Your task to perform on an android device: Turn on the flashlight Image 0: 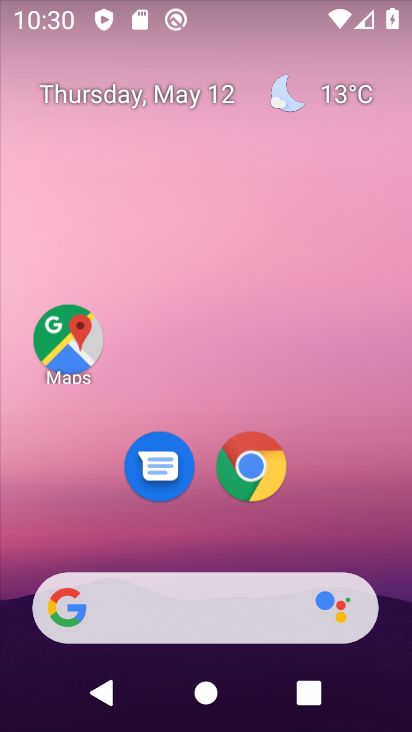
Step 0: drag from (315, 531) to (325, 181)
Your task to perform on an android device: Turn on the flashlight Image 1: 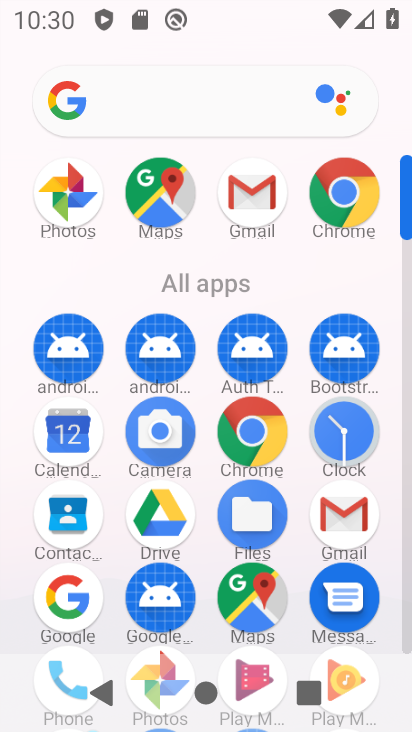
Step 1: drag from (295, 617) to (296, 314)
Your task to perform on an android device: Turn on the flashlight Image 2: 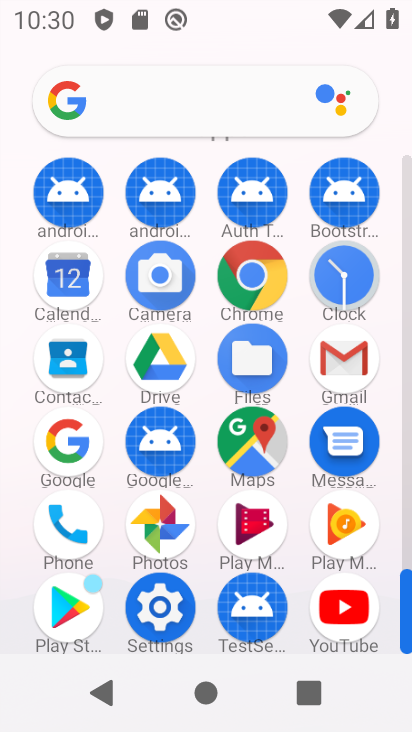
Step 2: click (171, 608)
Your task to perform on an android device: Turn on the flashlight Image 3: 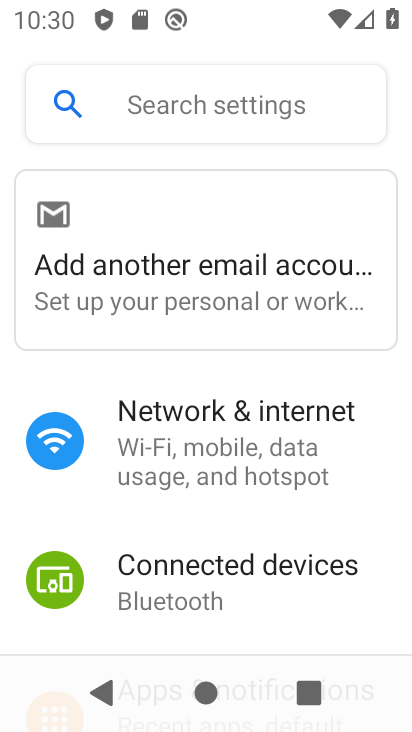
Step 3: click (201, 97)
Your task to perform on an android device: Turn on the flashlight Image 4: 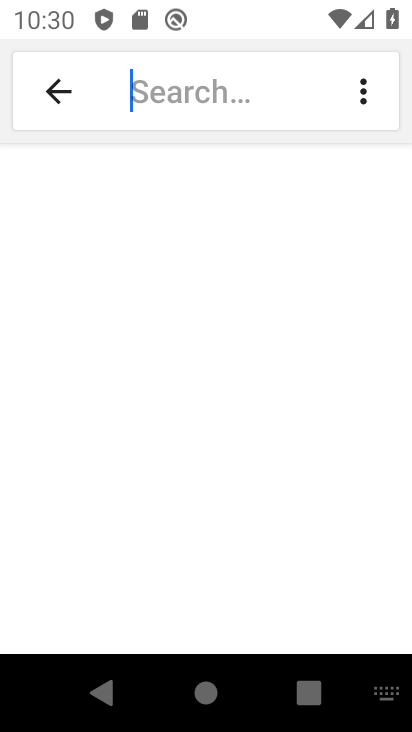
Step 4: type "flashlight"
Your task to perform on an android device: Turn on the flashlight Image 5: 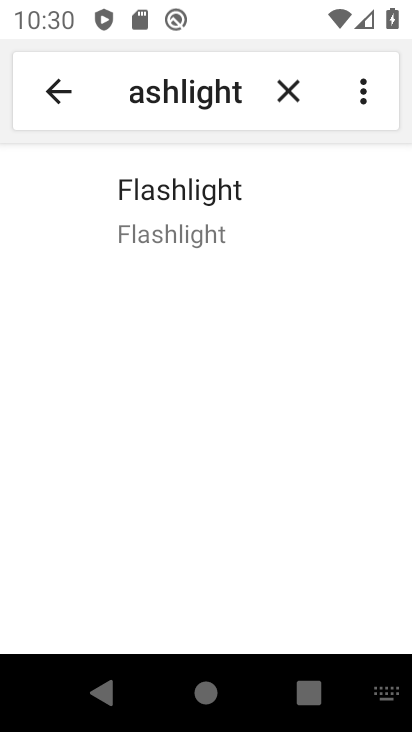
Step 5: click (200, 242)
Your task to perform on an android device: Turn on the flashlight Image 6: 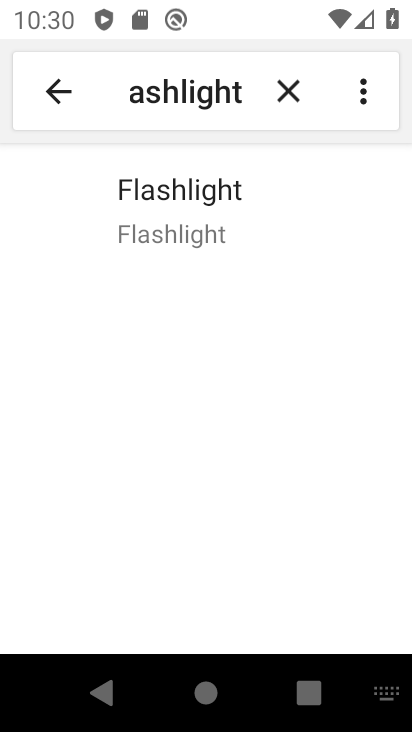
Step 6: task complete